Your task to perform on an android device: read, delete, or share a saved page in the chrome app Image 0: 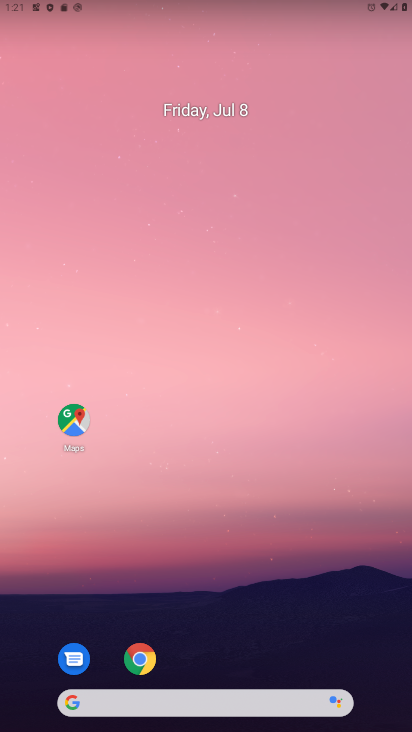
Step 0: click (136, 654)
Your task to perform on an android device: read, delete, or share a saved page in the chrome app Image 1: 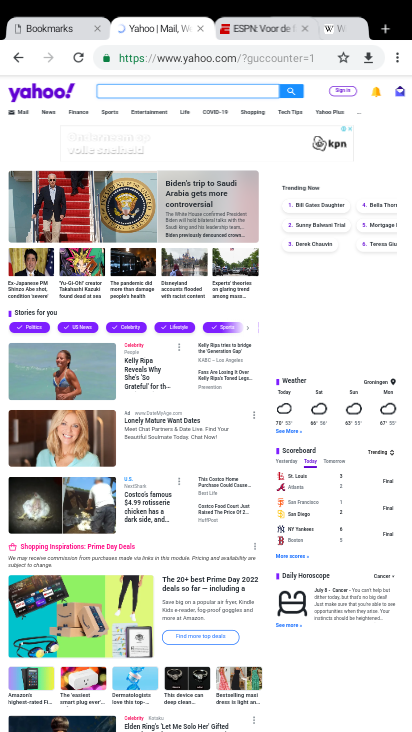
Step 1: click (397, 52)
Your task to perform on an android device: read, delete, or share a saved page in the chrome app Image 2: 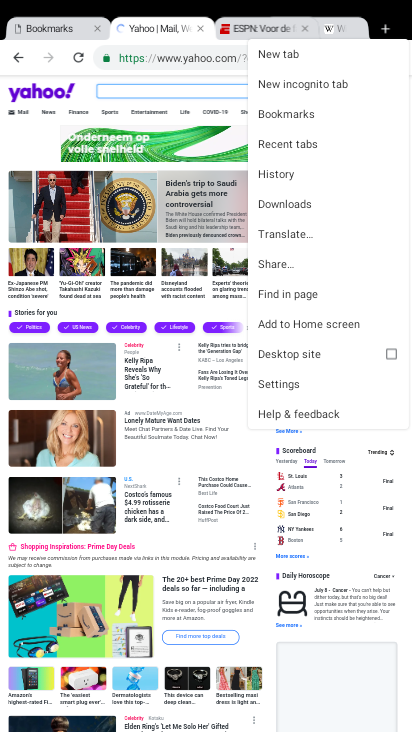
Step 2: click (276, 203)
Your task to perform on an android device: read, delete, or share a saved page in the chrome app Image 3: 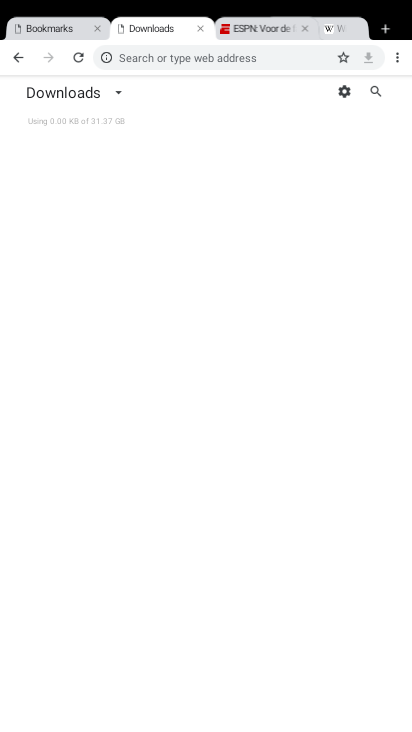
Step 3: task complete